Your task to perform on an android device: Show me popular games on the Play Store Image 0: 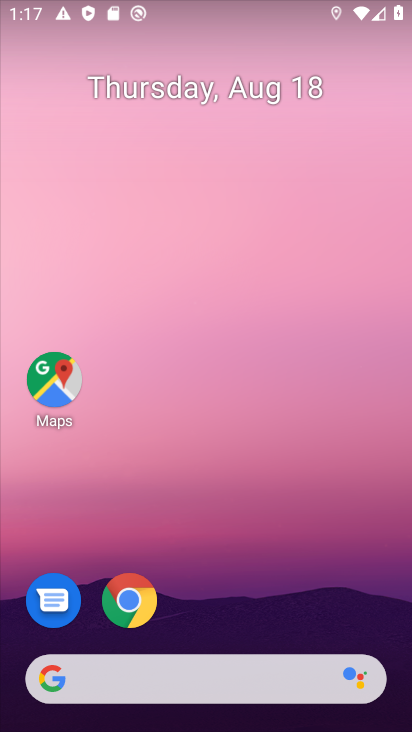
Step 0: press home button
Your task to perform on an android device: Show me popular games on the Play Store Image 1: 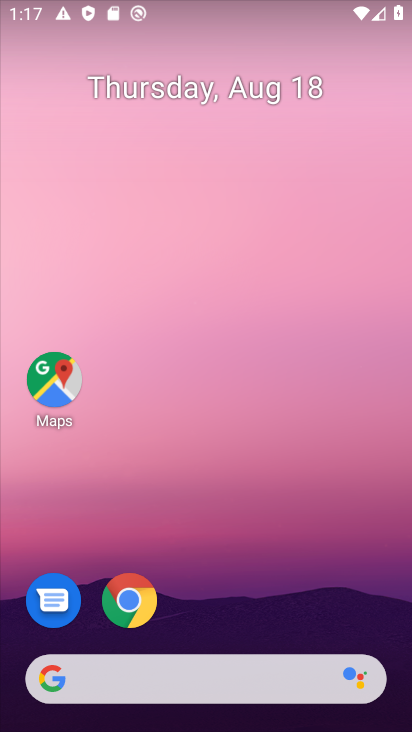
Step 1: drag from (204, 554) to (131, 158)
Your task to perform on an android device: Show me popular games on the Play Store Image 2: 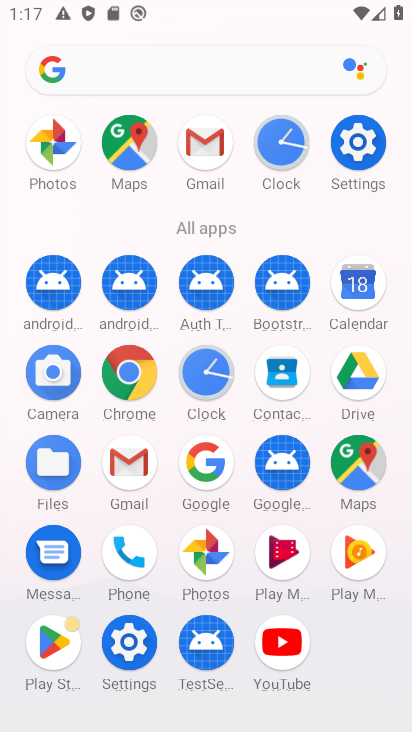
Step 2: click (56, 642)
Your task to perform on an android device: Show me popular games on the Play Store Image 3: 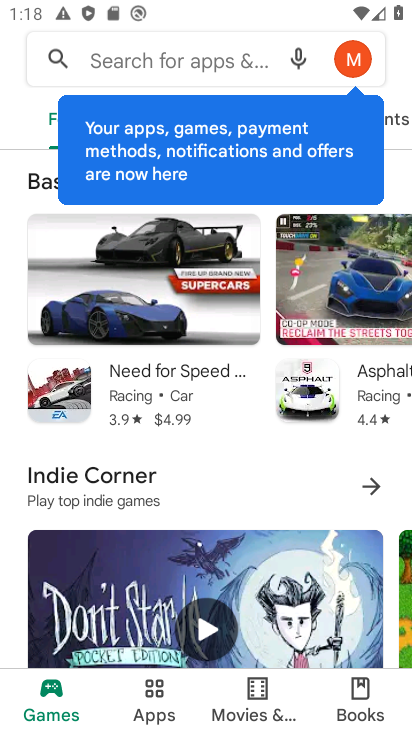
Step 3: task complete